Your task to perform on an android device: change alarm snooze length Image 0: 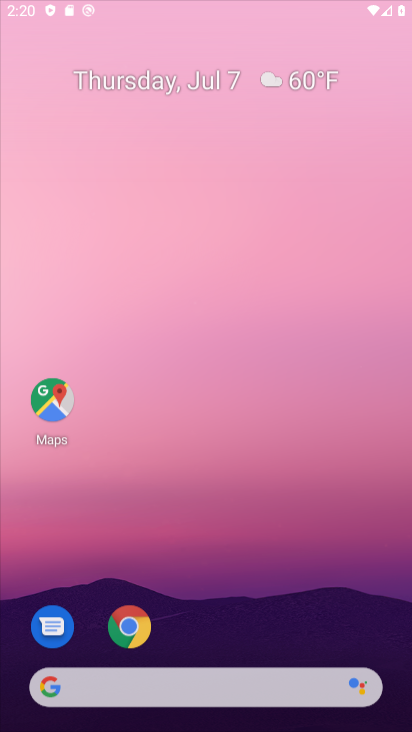
Step 0: click (162, 207)
Your task to perform on an android device: change alarm snooze length Image 1: 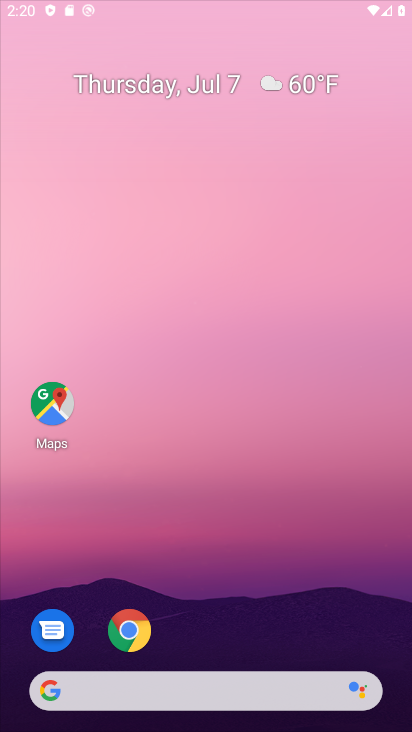
Step 1: drag from (212, 479) to (269, 51)
Your task to perform on an android device: change alarm snooze length Image 2: 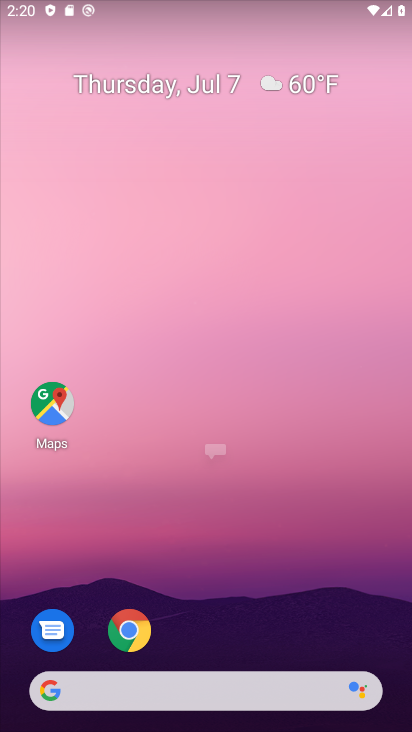
Step 2: drag from (340, 483) to (140, 166)
Your task to perform on an android device: change alarm snooze length Image 3: 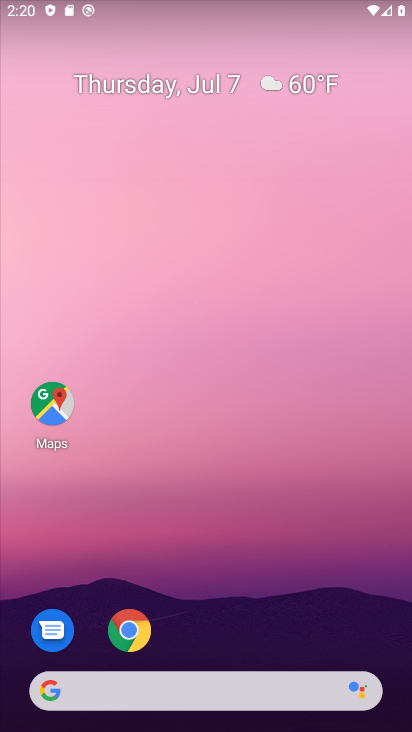
Step 3: click (172, 184)
Your task to perform on an android device: change alarm snooze length Image 4: 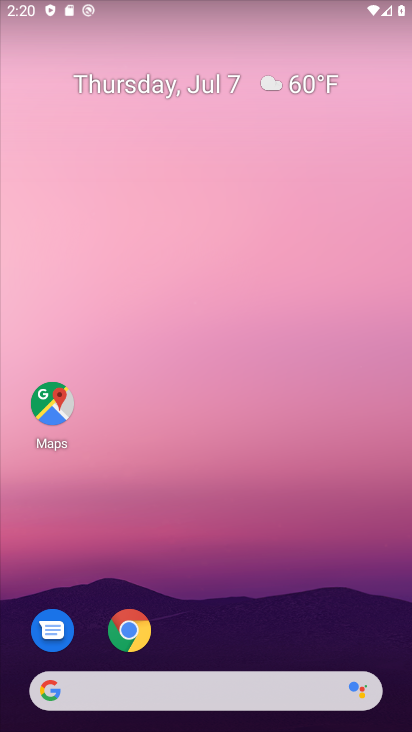
Step 4: drag from (104, 297) to (16, 32)
Your task to perform on an android device: change alarm snooze length Image 5: 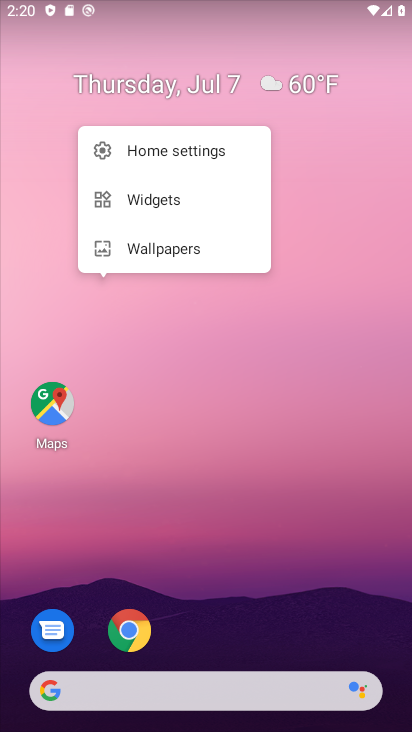
Step 5: click (130, 225)
Your task to perform on an android device: change alarm snooze length Image 6: 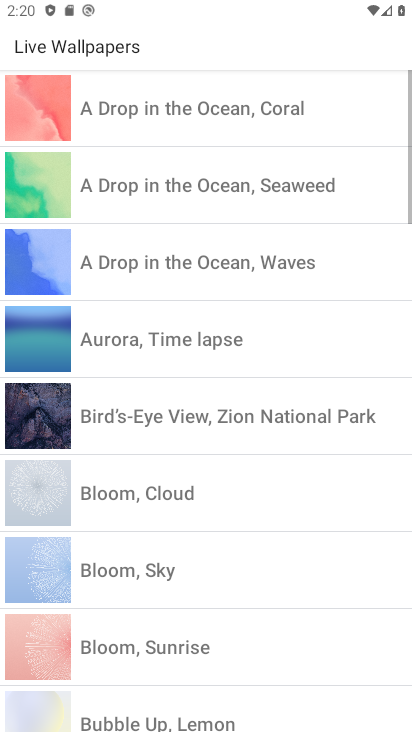
Step 6: click (154, 311)
Your task to perform on an android device: change alarm snooze length Image 7: 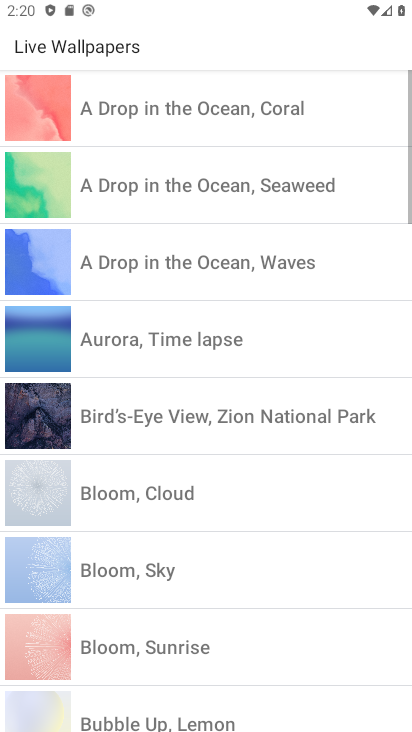
Step 7: click (164, 308)
Your task to perform on an android device: change alarm snooze length Image 8: 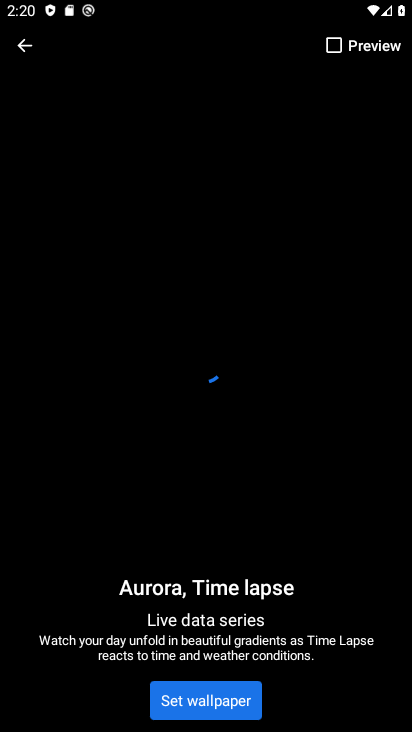
Step 8: drag from (266, 644) to (95, 5)
Your task to perform on an android device: change alarm snooze length Image 9: 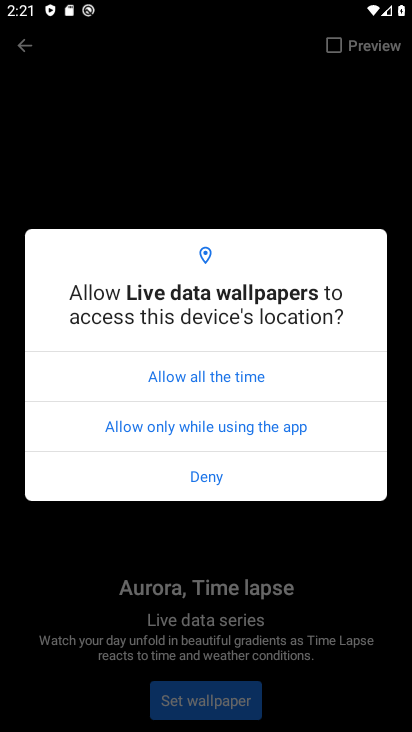
Step 9: press back button
Your task to perform on an android device: change alarm snooze length Image 10: 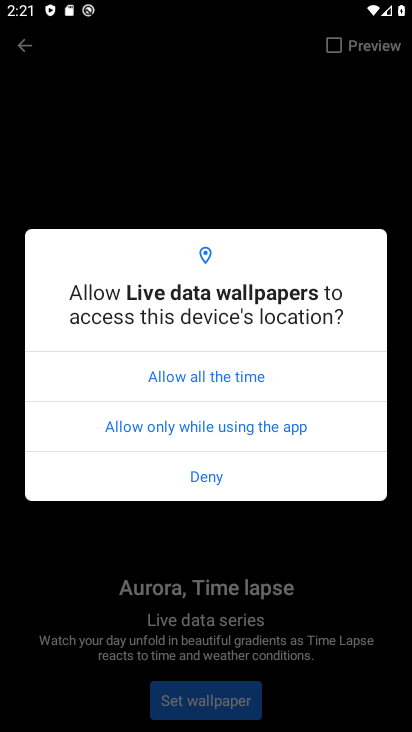
Step 10: press home button
Your task to perform on an android device: change alarm snooze length Image 11: 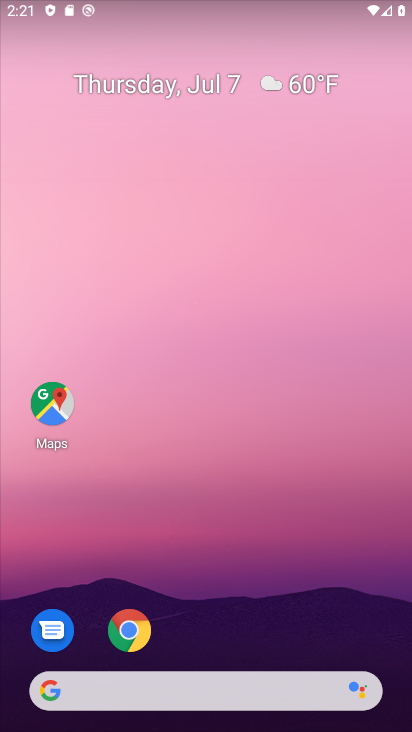
Step 11: press back button
Your task to perform on an android device: change alarm snooze length Image 12: 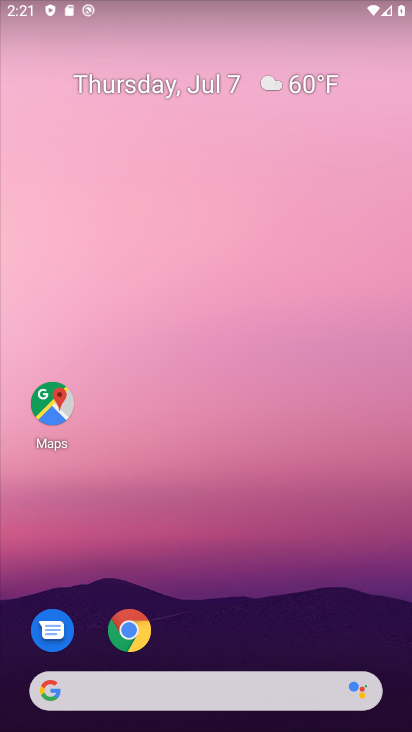
Step 12: click (231, 177)
Your task to perform on an android device: change alarm snooze length Image 13: 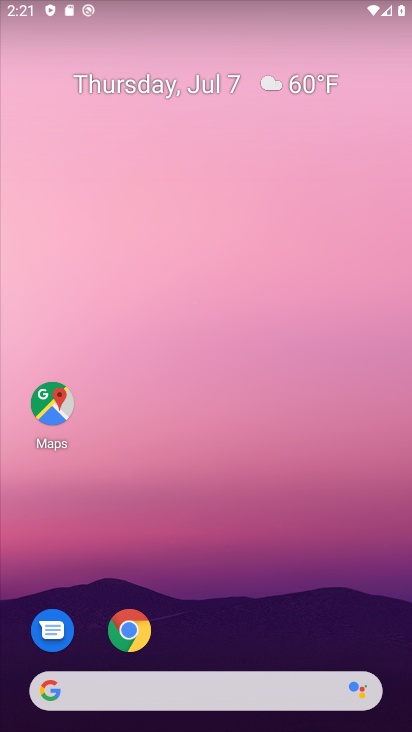
Step 13: task complete